Your task to perform on an android device: turn off javascript in the chrome app Image 0: 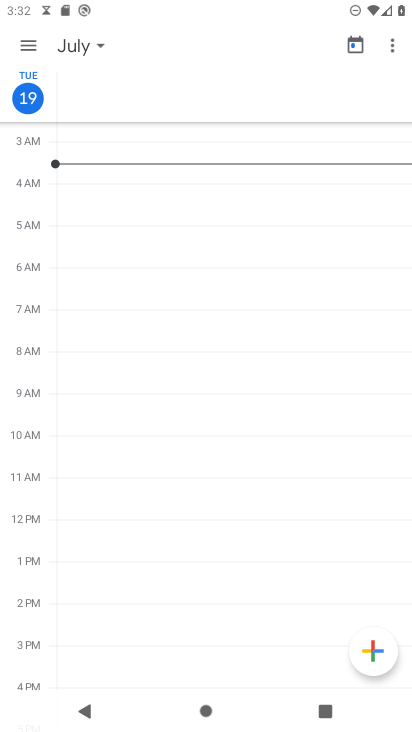
Step 0: press home button
Your task to perform on an android device: turn off javascript in the chrome app Image 1: 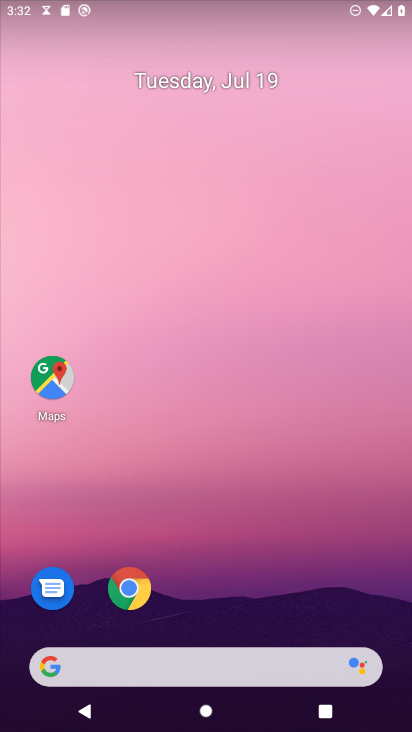
Step 1: click (132, 583)
Your task to perform on an android device: turn off javascript in the chrome app Image 2: 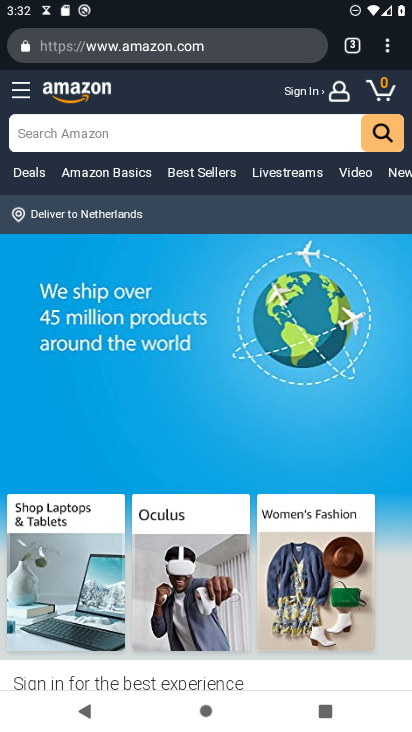
Step 2: click (385, 49)
Your task to perform on an android device: turn off javascript in the chrome app Image 3: 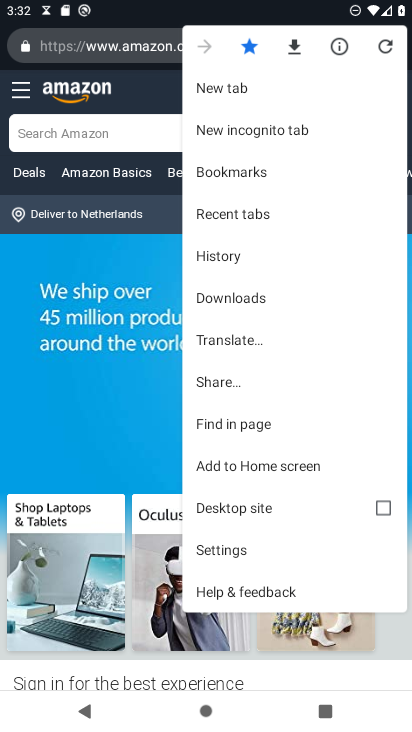
Step 3: click (208, 548)
Your task to perform on an android device: turn off javascript in the chrome app Image 4: 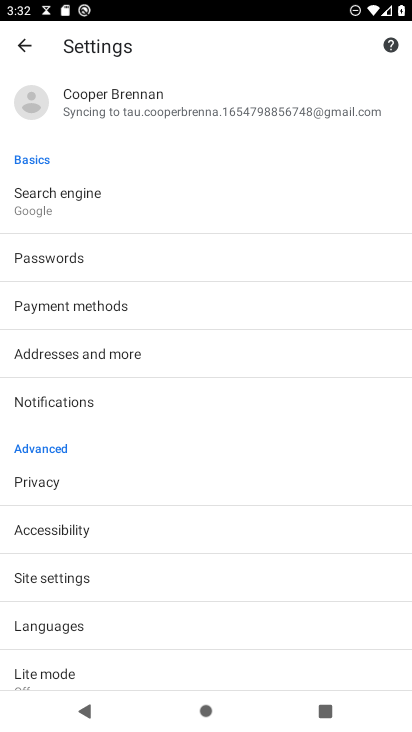
Step 4: click (74, 573)
Your task to perform on an android device: turn off javascript in the chrome app Image 5: 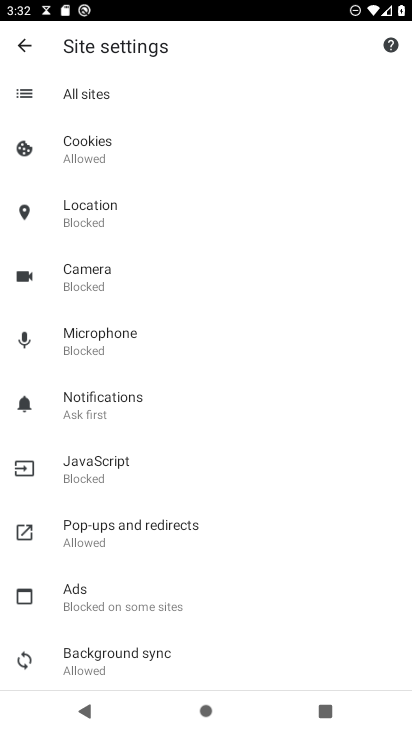
Step 5: click (99, 465)
Your task to perform on an android device: turn off javascript in the chrome app Image 6: 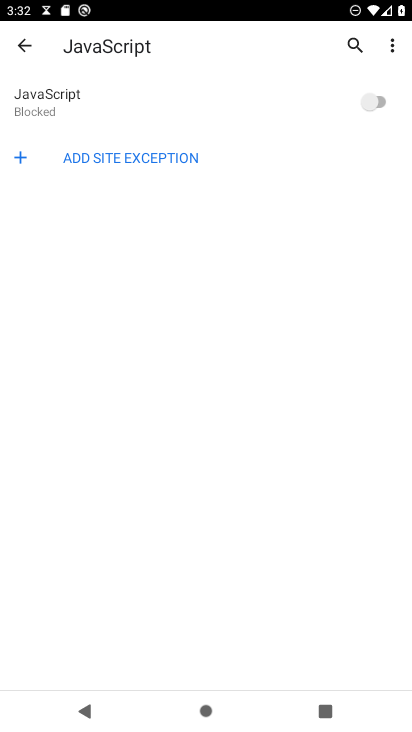
Step 6: task complete